Your task to perform on an android device: Open Youtube and go to "Your channel" Image 0: 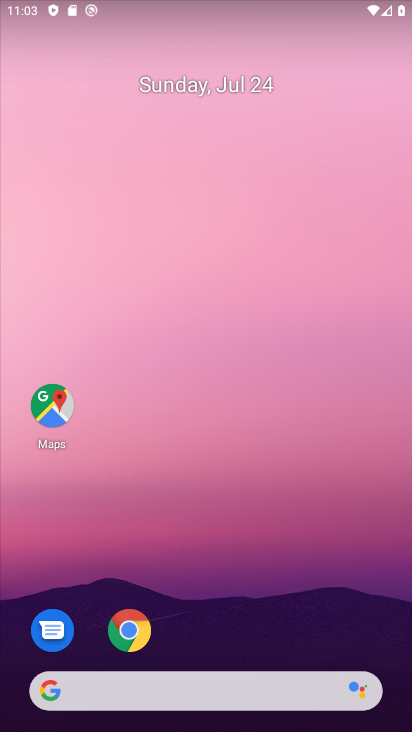
Step 0: drag from (254, 611) to (217, 126)
Your task to perform on an android device: Open Youtube and go to "Your channel" Image 1: 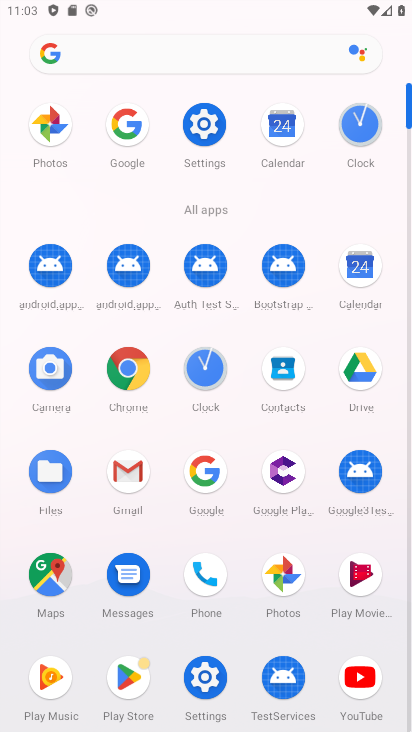
Step 1: click (354, 673)
Your task to perform on an android device: Open Youtube and go to "Your channel" Image 2: 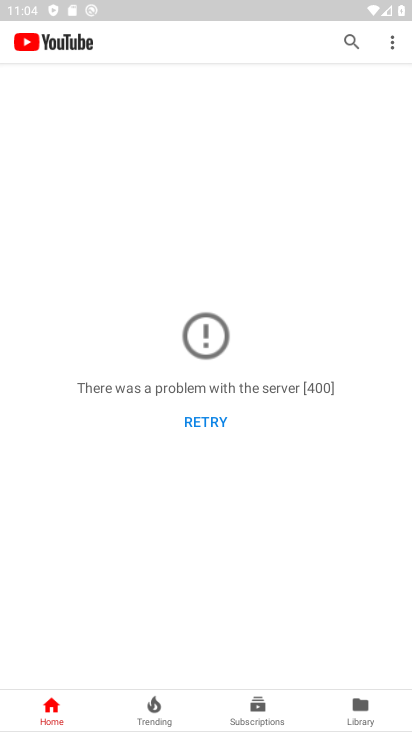
Step 2: click (198, 418)
Your task to perform on an android device: Open Youtube and go to "Your channel" Image 3: 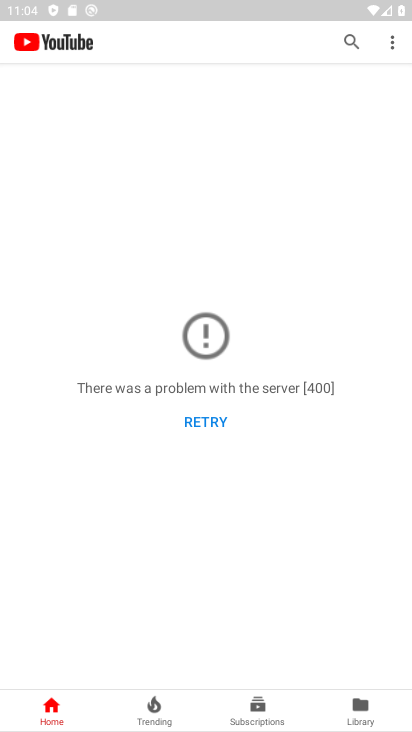
Step 3: click (198, 418)
Your task to perform on an android device: Open Youtube and go to "Your channel" Image 4: 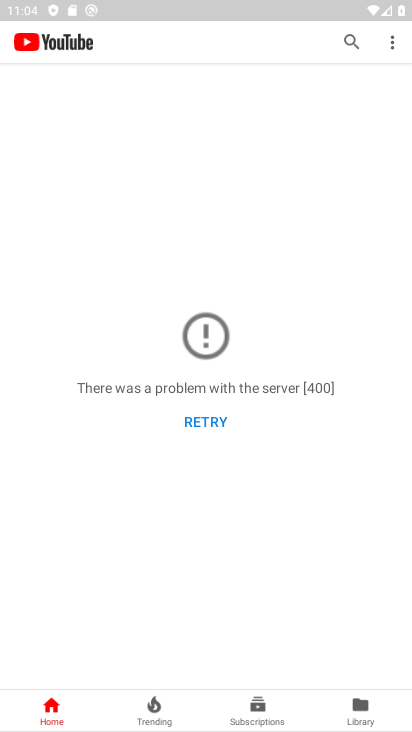
Step 4: task complete